Your task to perform on an android device: open wifi settings Image 0: 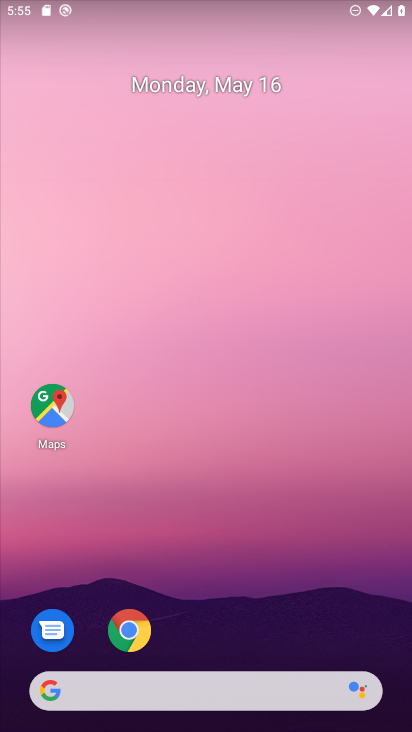
Step 0: drag from (343, 613) to (329, 0)
Your task to perform on an android device: open wifi settings Image 1: 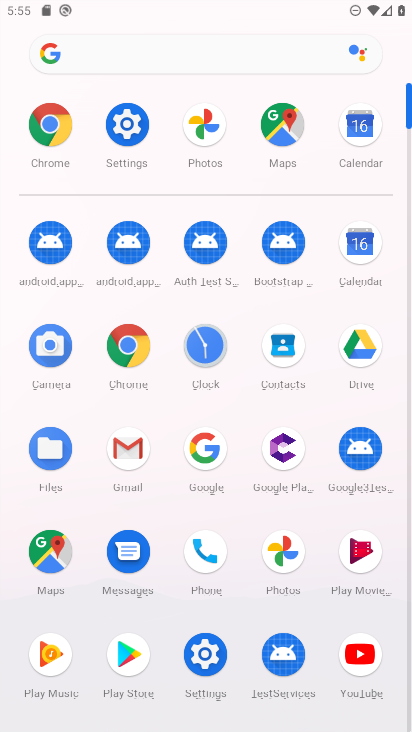
Step 1: drag from (247, 3) to (278, 621)
Your task to perform on an android device: open wifi settings Image 2: 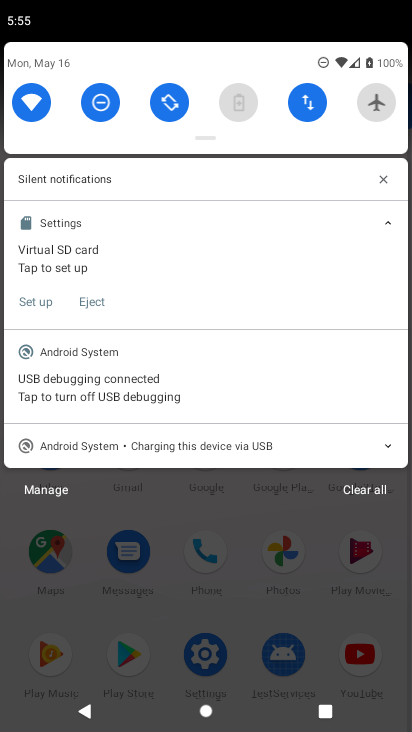
Step 2: click (32, 88)
Your task to perform on an android device: open wifi settings Image 3: 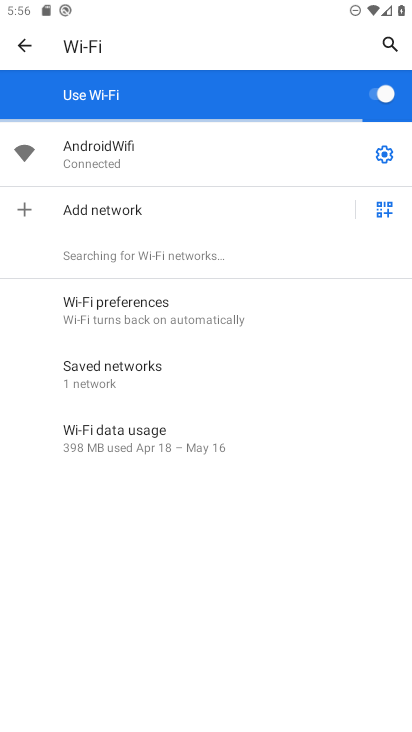
Step 3: task complete